Your task to perform on an android device: Open Google Image 0: 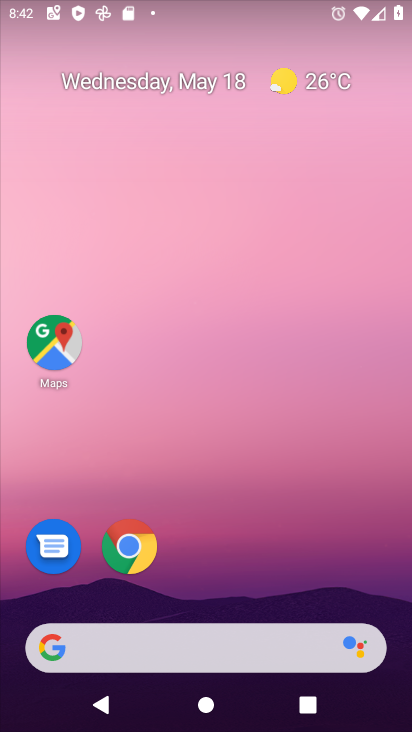
Step 0: drag from (376, 590) to (298, 94)
Your task to perform on an android device: Open Google Image 1: 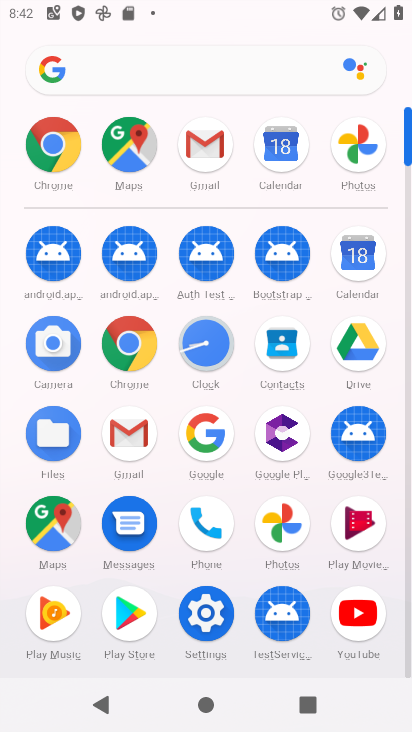
Step 1: click (211, 434)
Your task to perform on an android device: Open Google Image 2: 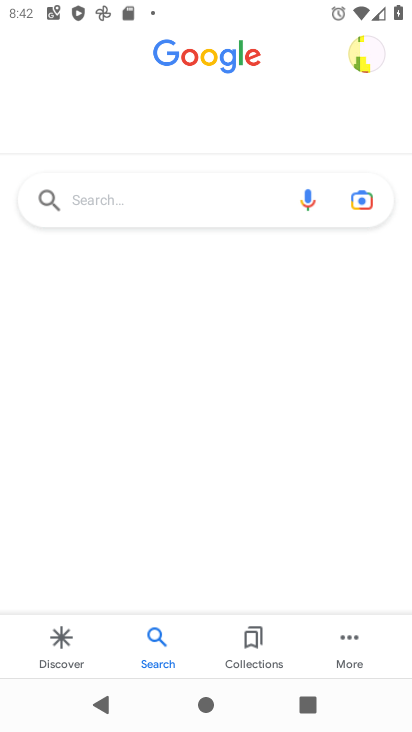
Step 2: task complete